Your task to perform on an android device: Check the news Image 0: 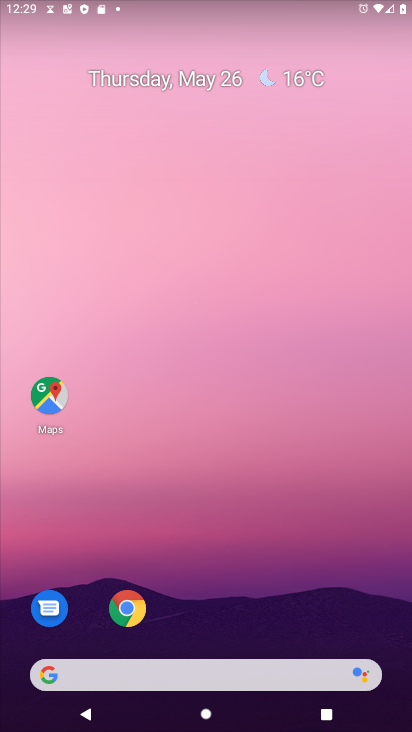
Step 0: drag from (38, 316) to (253, 286)
Your task to perform on an android device: Check the news Image 1: 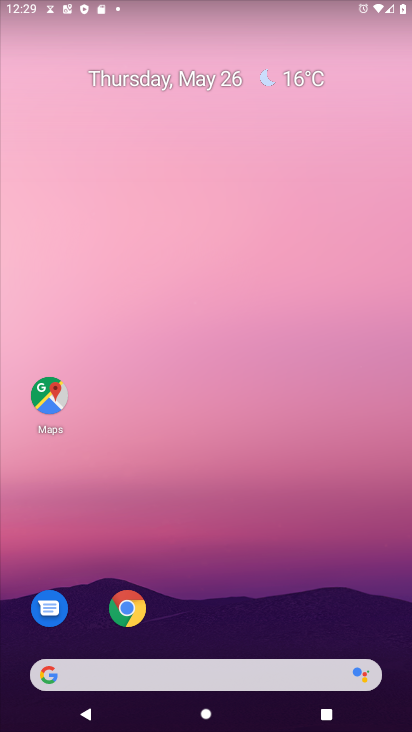
Step 1: task complete